Your task to perform on an android device: Open display settings Image 0: 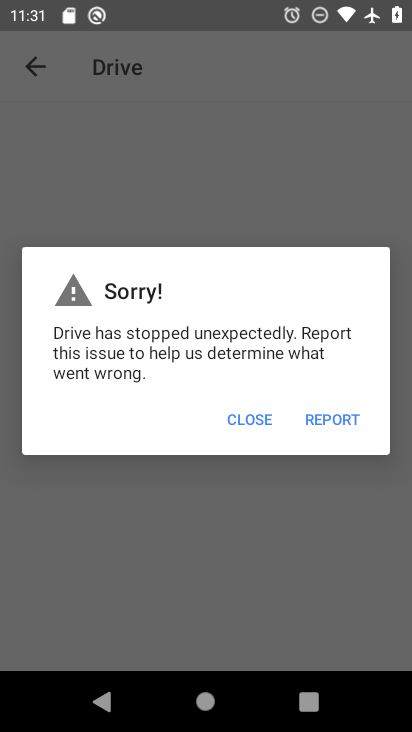
Step 0: press home button
Your task to perform on an android device: Open display settings Image 1: 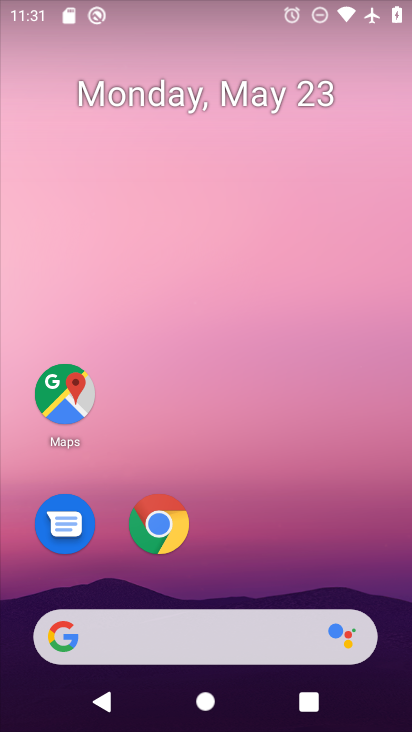
Step 1: drag from (244, 558) to (244, 205)
Your task to perform on an android device: Open display settings Image 2: 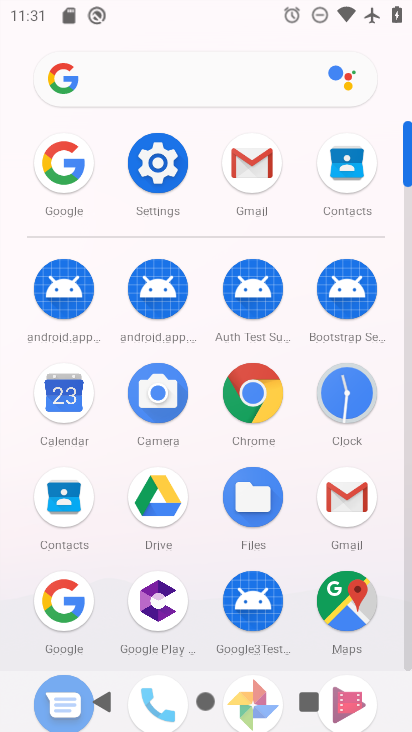
Step 2: click (157, 179)
Your task to perform on an android device: Open display settings Image 3: 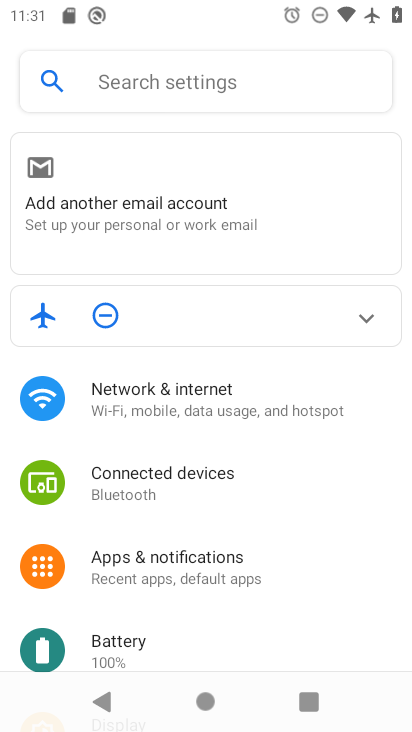
Step 3: drag from (199, 606) to (215, 420)
Your task to perform on an android device: Open display settings Image 4: 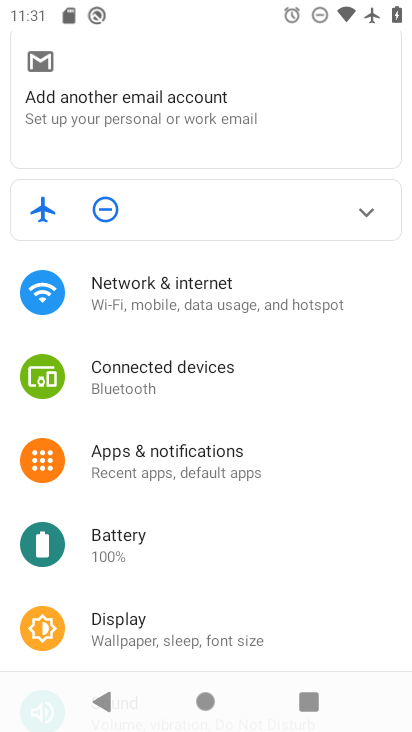
Step 4: click (148, 614)
Your task to perform on an android device: Open display settings Image 5: 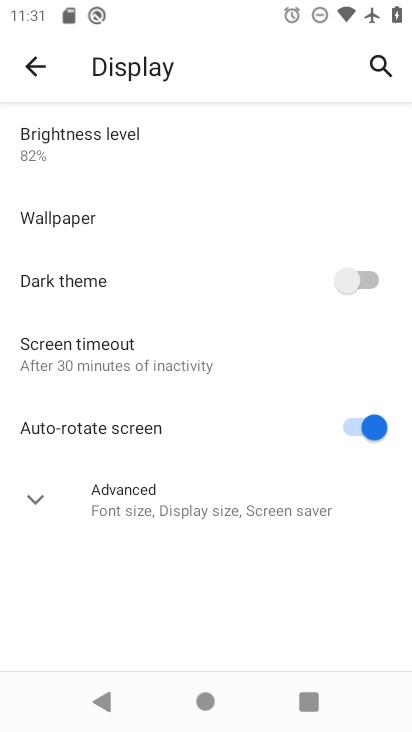
Step 5: task complete